Your task to perform on an android device: Go to settings Image 0: 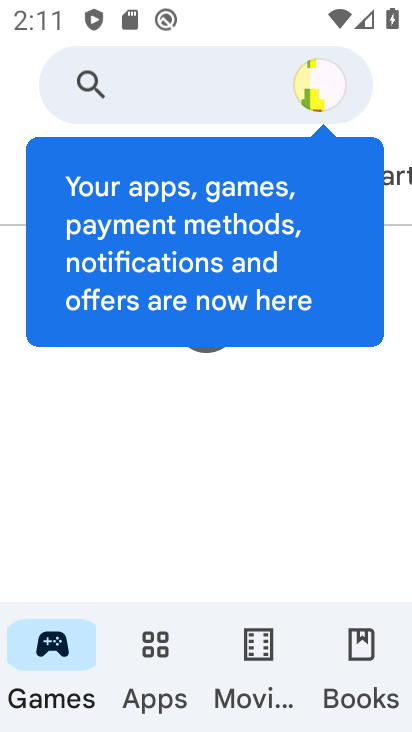
Step 0: press home button
Your task to perform on an android device: Go to settings Image 1: 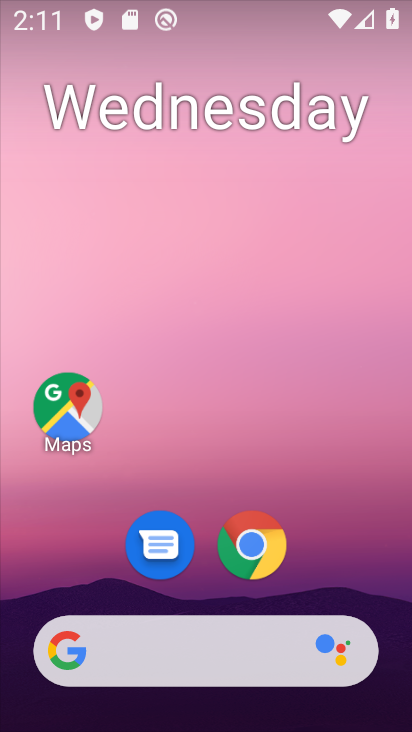
Step 1: drag from (103, 620) to (200, 191)
Your task to perform on an android device: Go to settings Image 2: 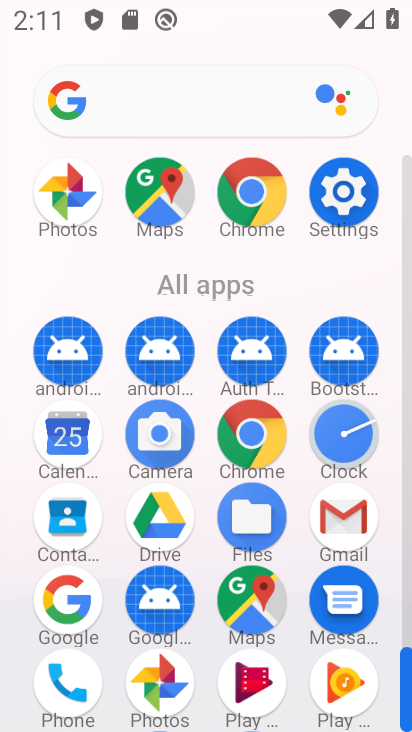
Step 2: drag from (157, 599) to (236, 402)
Your task to perform on an android device: Go to settings Image 3: 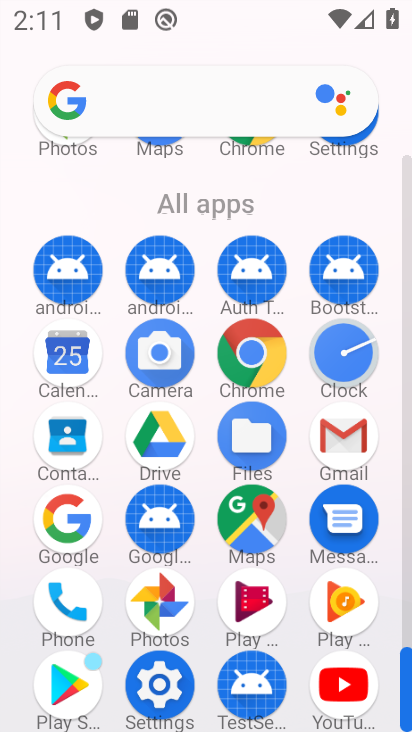
Step 3: click (158, 695)
Your task to perform on an android device: Go to settings Image 4: 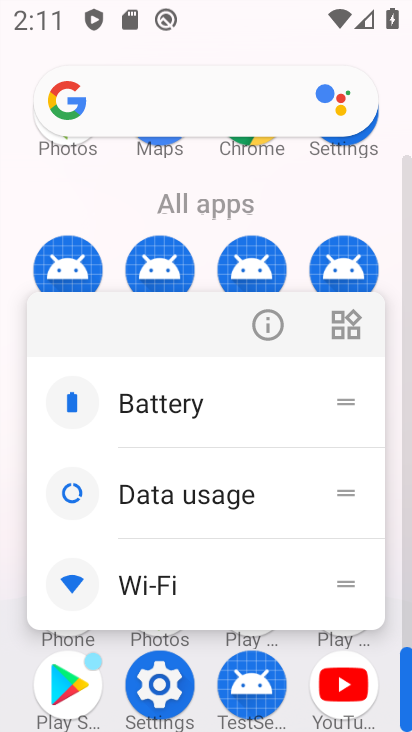
Step 4: click (159, 692)
Your task to perform on an android device: Go to settings Image 5: 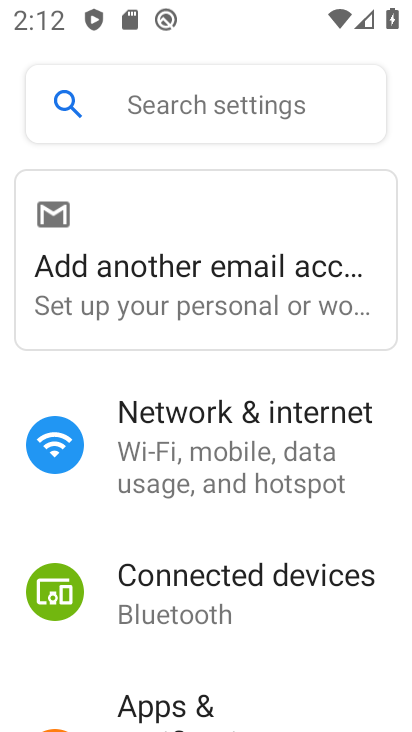
Step 5: task complete